Your task to perform on an android device: clear all cookies in the chrome app Image 0: 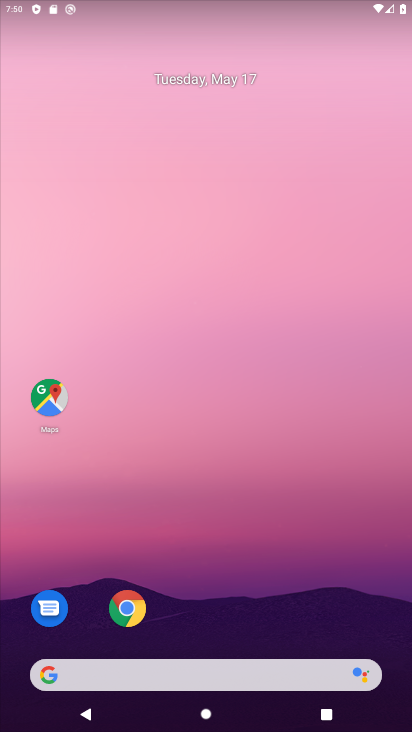
Step 0: click (127, 608)
Your task to perform on an android device: clear all cookies in the chrome app Image 1: 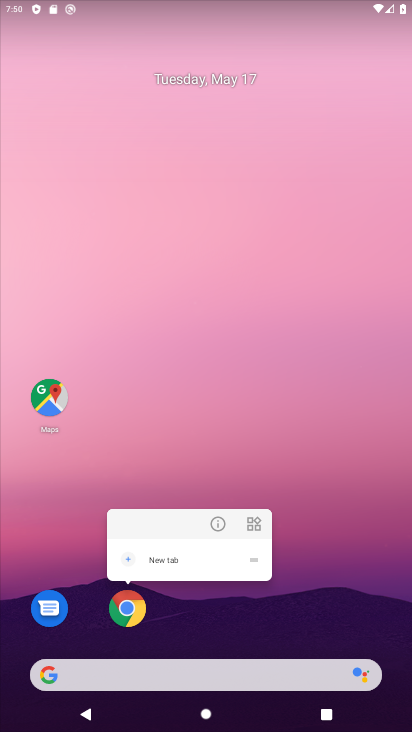
Step 1: click (131, 610)
Your task to perform on an android device: clear all cookies in the chrome app Image 2: 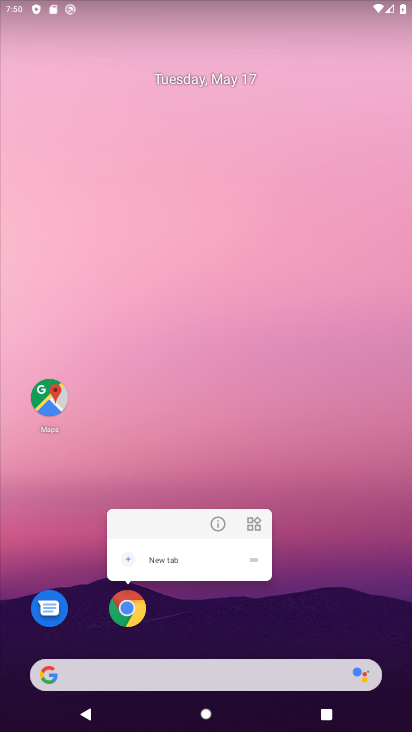
Step 2: click (120, 611)
Your task to perform on an android device: clear all cookies in the chrome app Image 3: 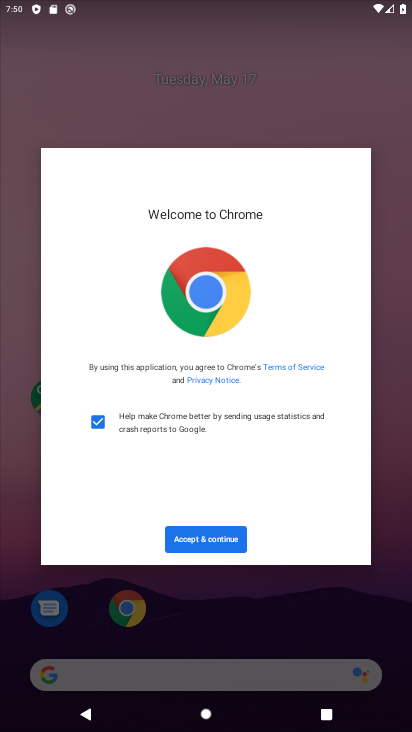
Step 3: click (213, 535)
Your task to perform on an android device: clear all cookies in the chrome app Image 4: 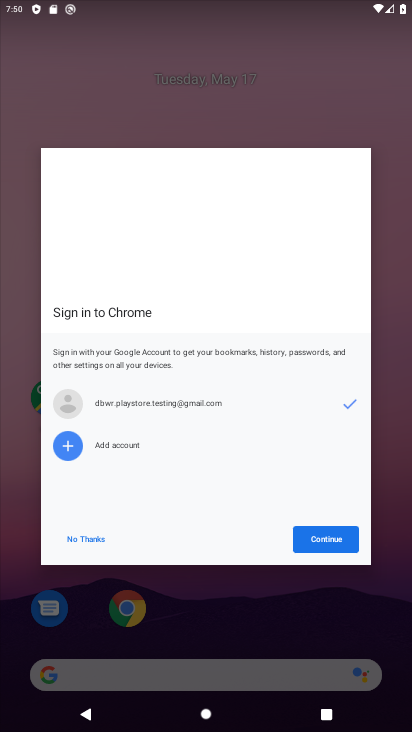
Step 4: click (312, 540)
Your task to perform on an android device: clear all cookies in the chrome app Image 5: 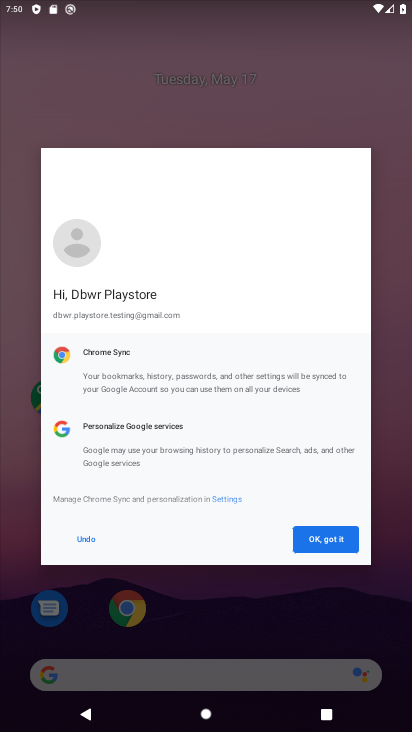
Step 5: click (312, 540)
Your task to perform on an android device: clear all cookies in the chrome app Image 6: 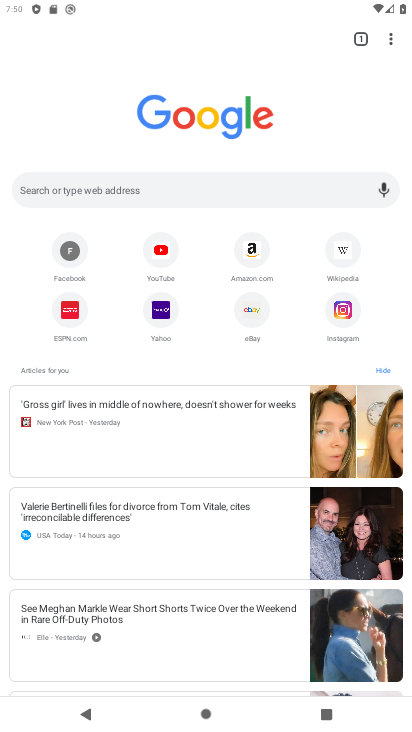
Step 6: click (390, 42)
Your task to perform on an android device: clear all cookies in the chrome app Image 7: 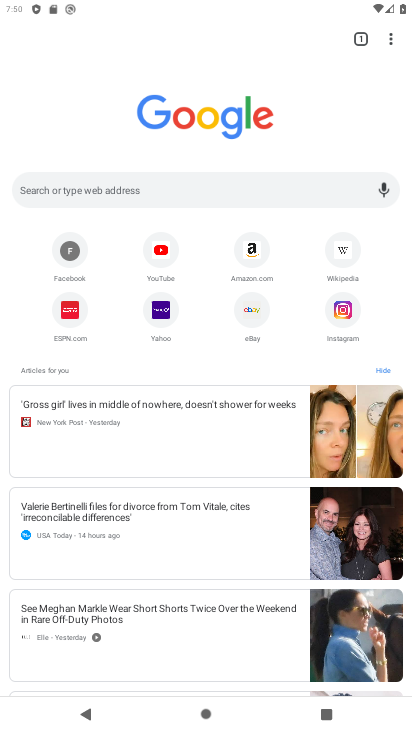
Step 7: click (388, 35)
Your task to perform on an android device: clear all cookies in the chrome app Image 8: 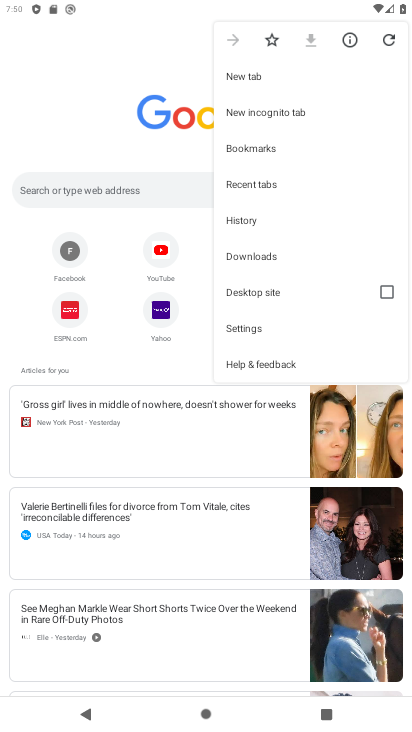
Step 8: click (232, 326)
Your task to perform on an android device: clear all cookies in the chrome app Image 9: 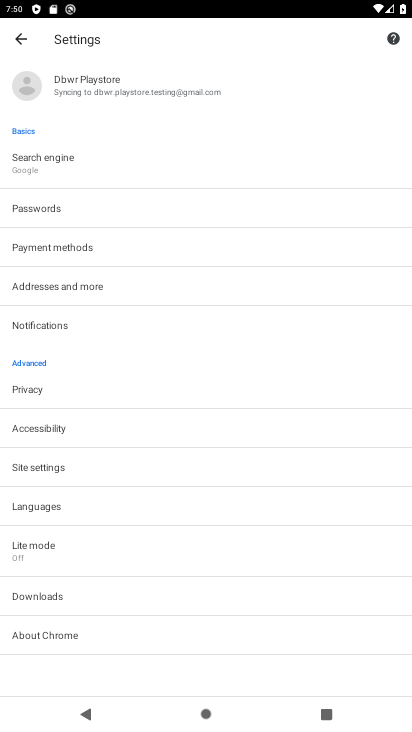
Step 9: click (21, 383)
Your task to perform on an android device: clear all cookies in the chrome app Image 10: 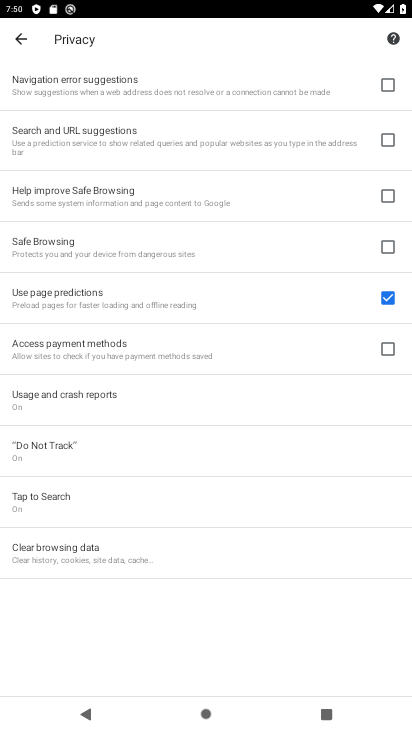
Step 10: click (155, 550)
Your task to perform on an android device: clear all cookies in the chrome app Image 11: 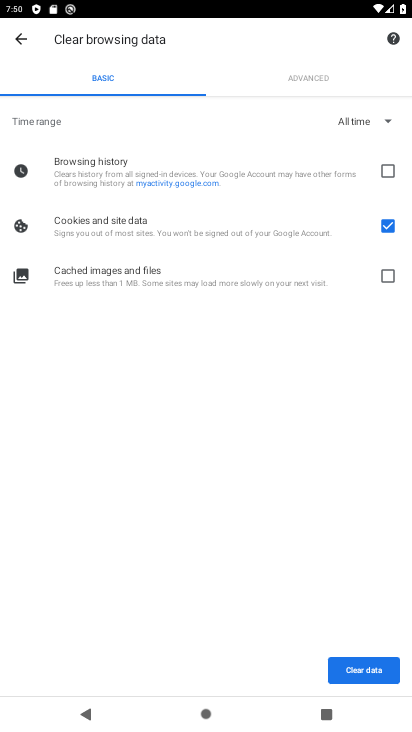
Step 11: click (343, 672)
Your task to perform on an android device: clear all cookies in the chrome app Image 12: 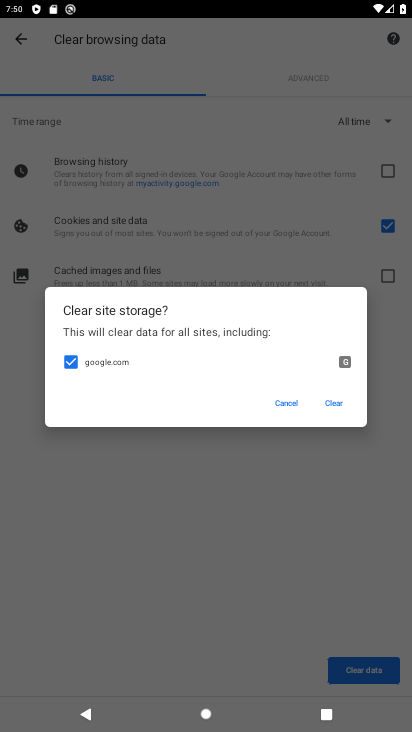
Step 12: click (329, 401)
Your task to perform on an android device: clear all cookies in the chrome app Image 13: 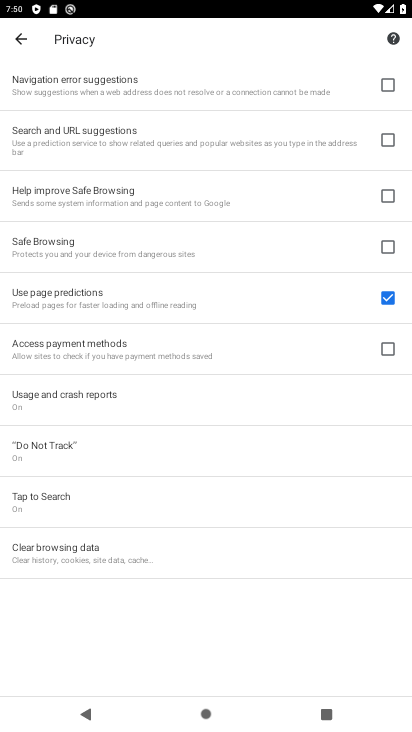
Step 13: task complete